Your task to perform on an android device: toggle improve location accuracy Image 0: 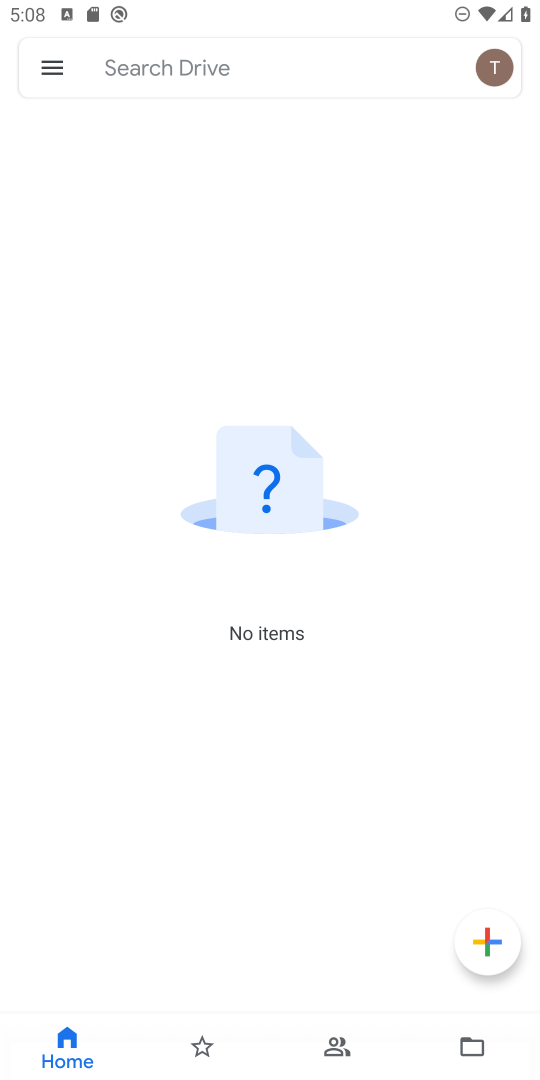
Step 0: press home button
Your task to perform on an android device: toggle improve location accuracy Image 1: 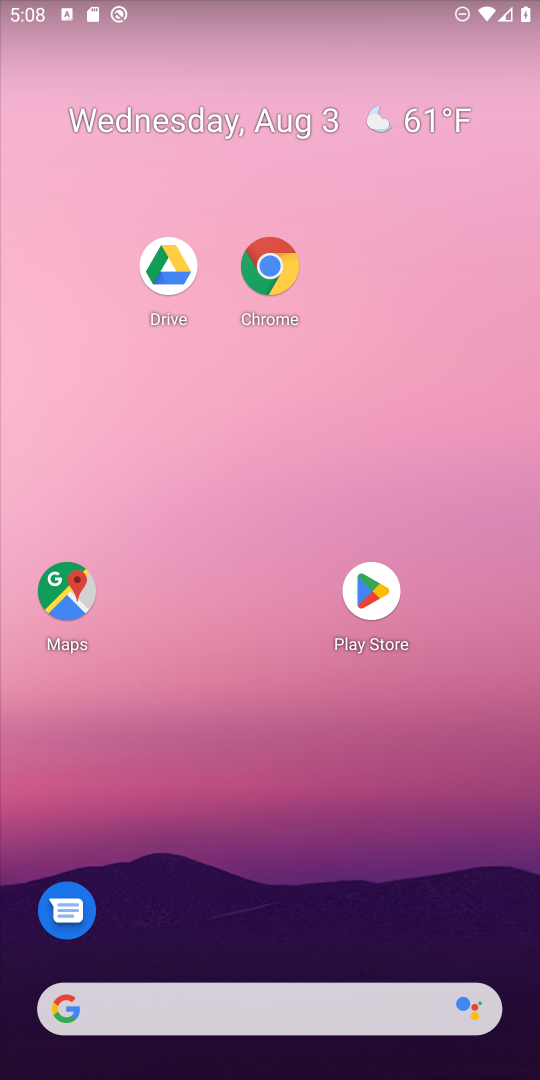
Step 1: drag from (400, 990) to (443, 29)
Your task to perform on an android device: toggle improve location accuracy Image 2: 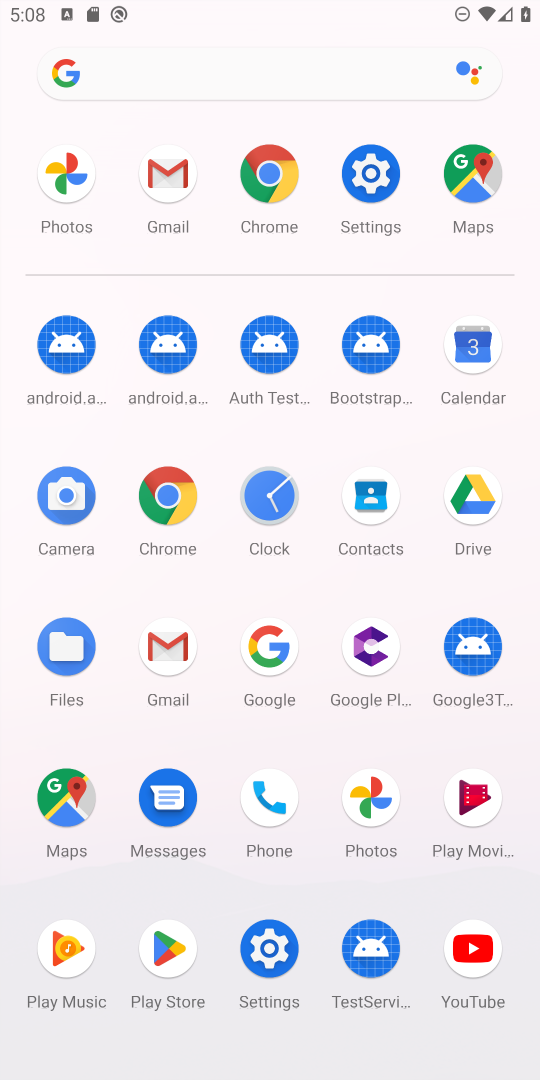
Step 2: click (384, 177)
Your task to perform on an android device: toggle improve location accuracy Image 3: 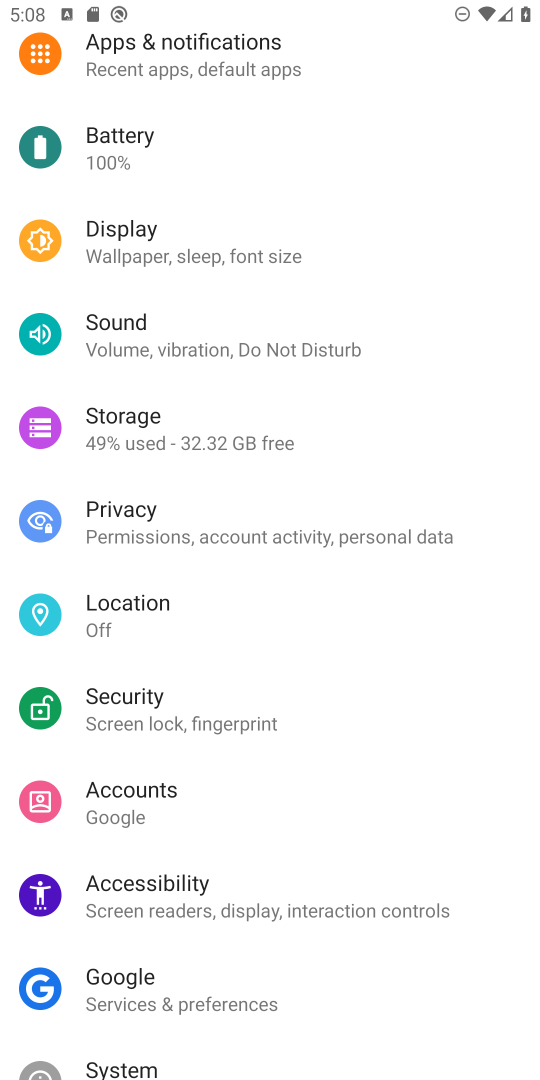
Step 3: click (158, 589)
Your task to perform on an android device: toggle improve location accuracy Image 4: 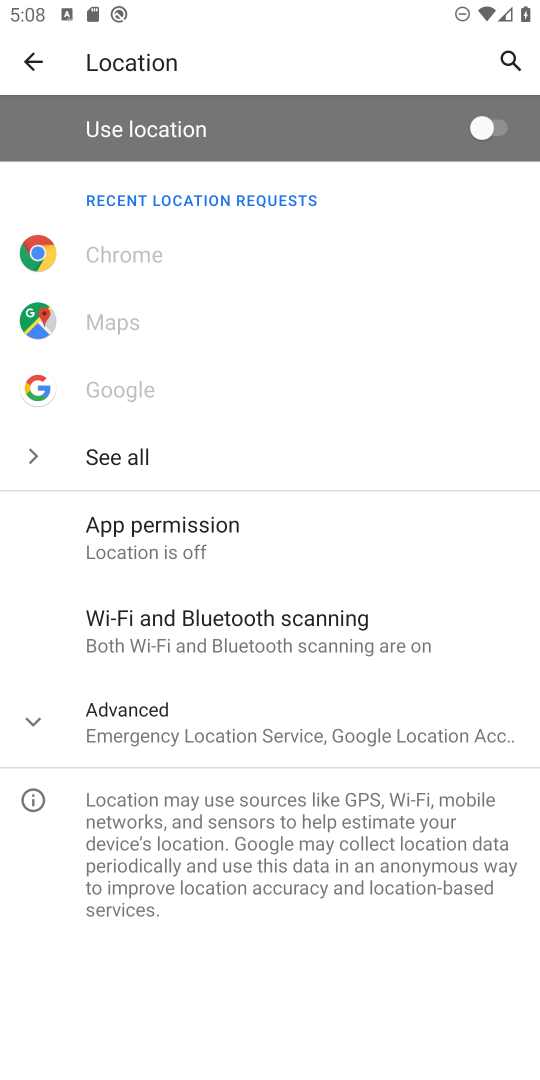
Step 4: click (237, 716)
Your task to perform on an android device: toggle improve location accuracy Image 5: 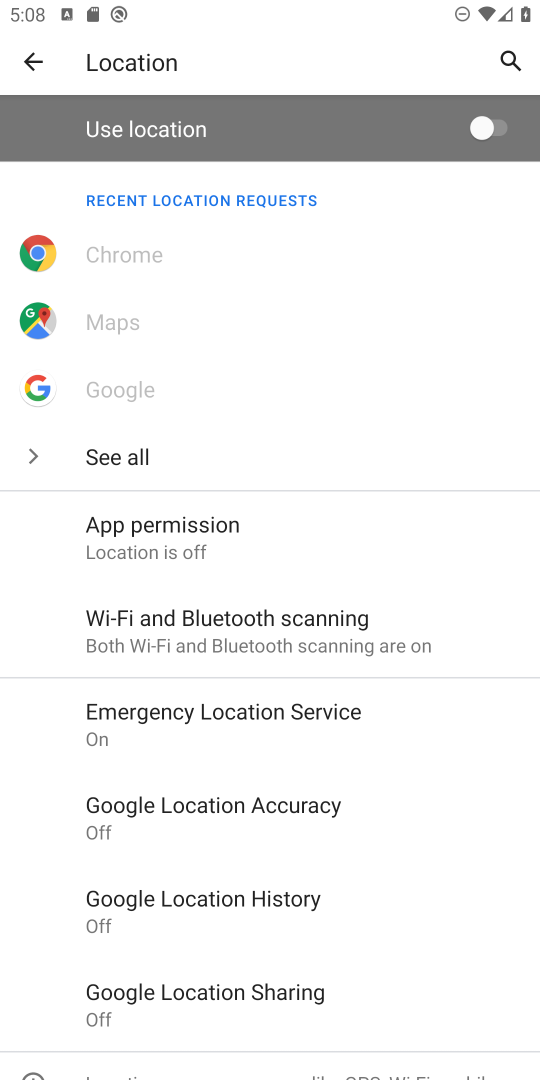
Step 5: click (307, 825)
Your task to perform on an android device: toggle improve location accuracy Image 6: 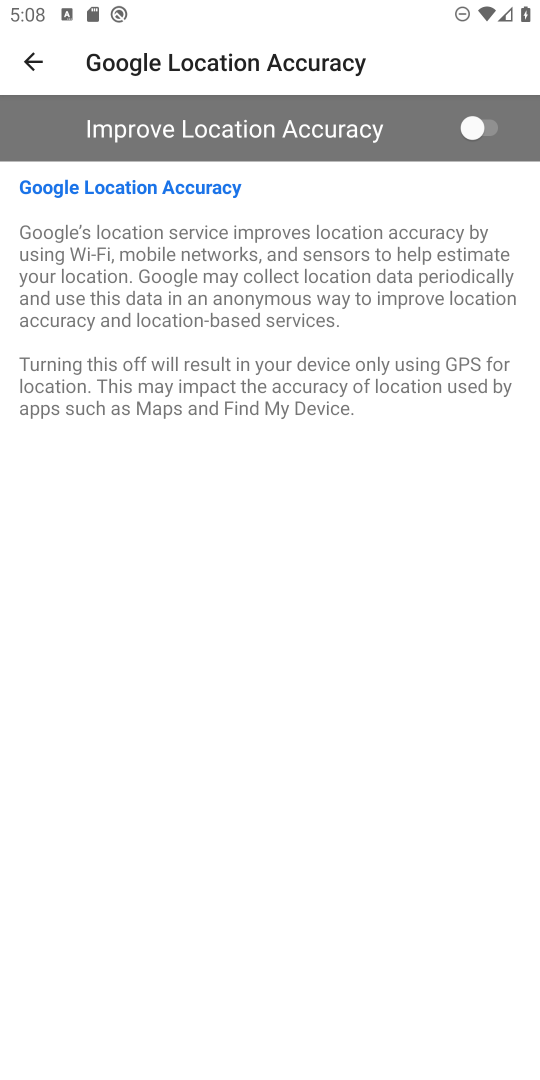
Step 6: click (475, 118)
Your task to perform on an android device: toggle improve location accuracy Image 7: 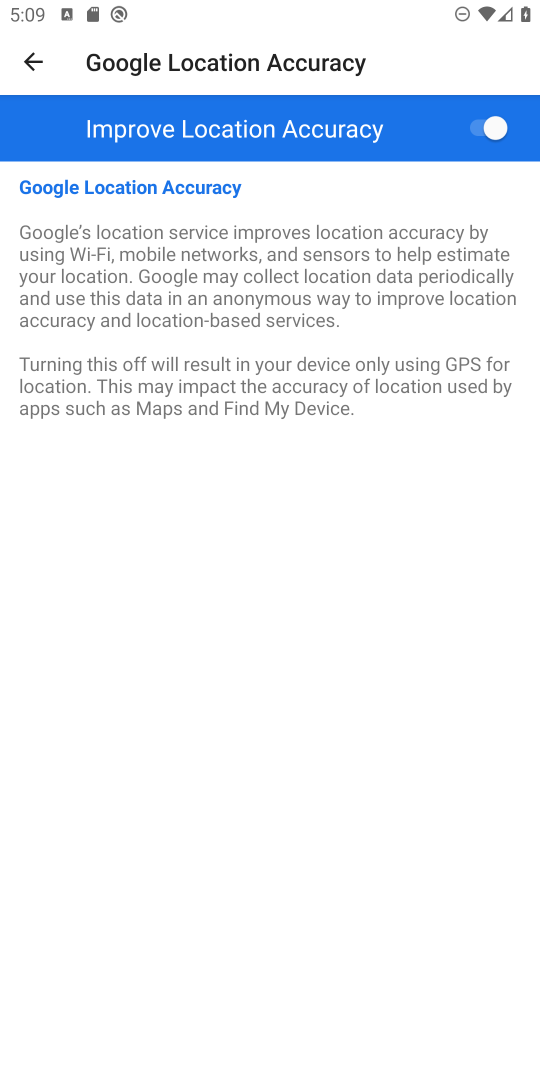
Step 7: task complete